Your task to perform on an android device: delete browsing data in the chrome app Image 0: 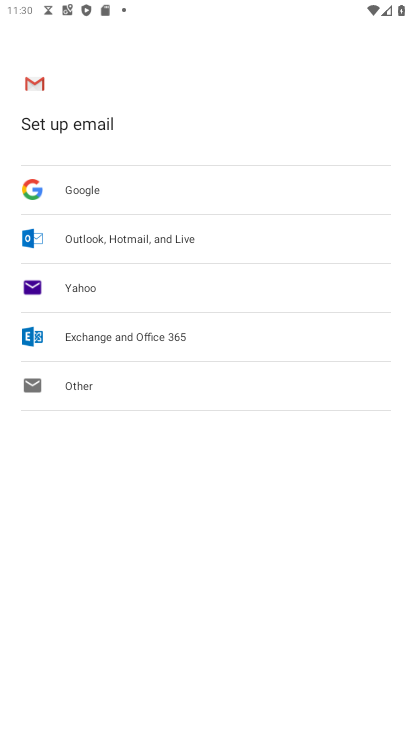
Step 0: press home button
Your task to perform on an android device: delete browsing data in the chrome app Image 1: 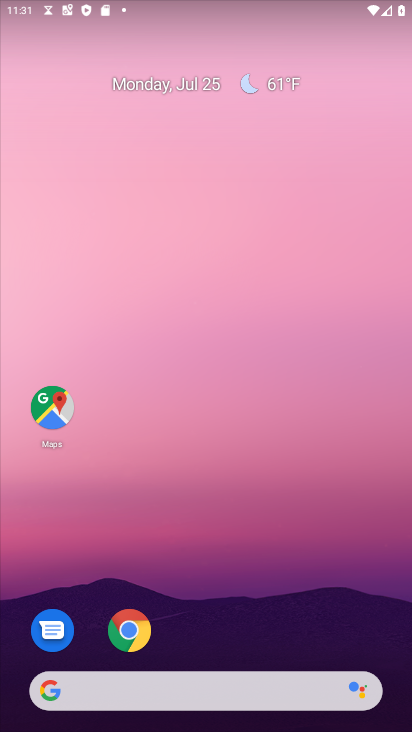
Step 1: click (141, 628)
Your task to perform on an android device: delete browsing data in the chrome app Image 2: 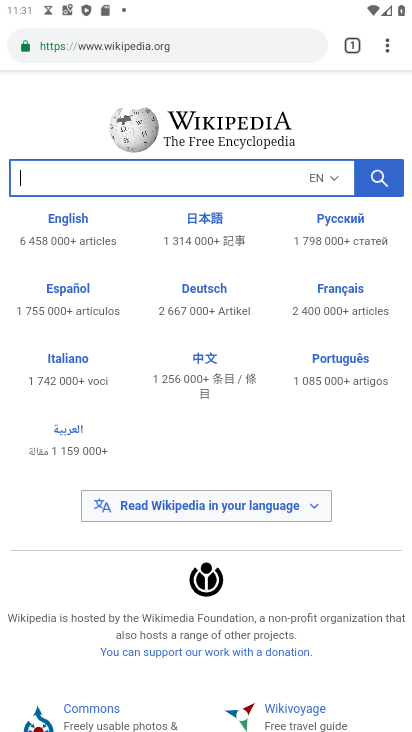
Step 2: click (388, 36)
Your task to perform on an android device: delete browsing data in the chrome app Image 3: 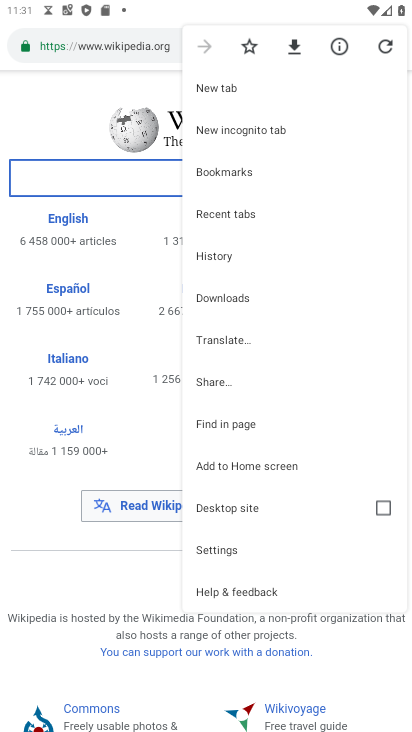
Step 3: click (238, 250)
Your task to perform on an android device: delete browsing data in the chrome app Image 4: 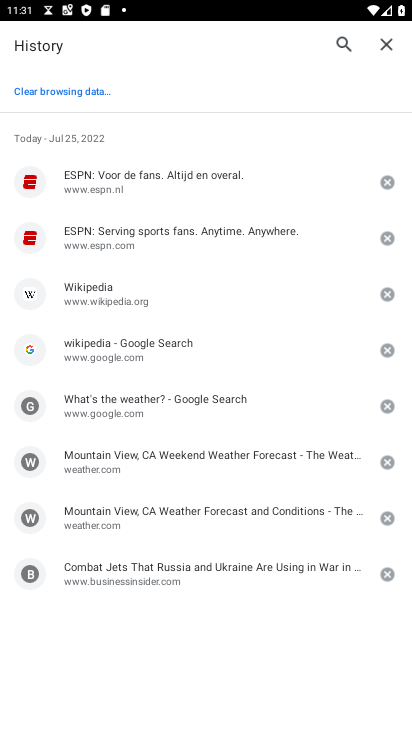
Step 4: click (52, 97)
Your task to perform on an android device: delete browsing data in the chrome app Image 5: 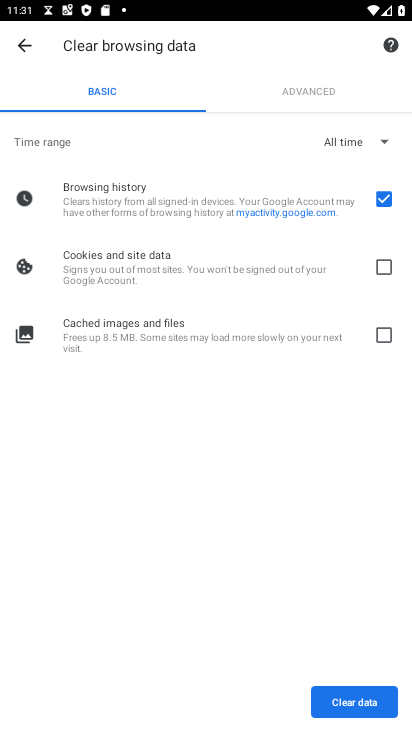
Step 5: click (377, 259)
Your task to perform on an android device: delete browsing data in the chrome app Image 6: 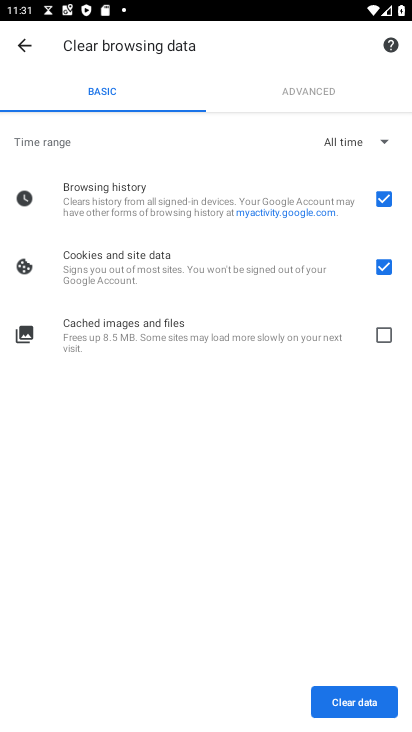
Step 6: click (396, 331)
Your task to perform on an android device: delete browsing data in the chrome app Image 7: 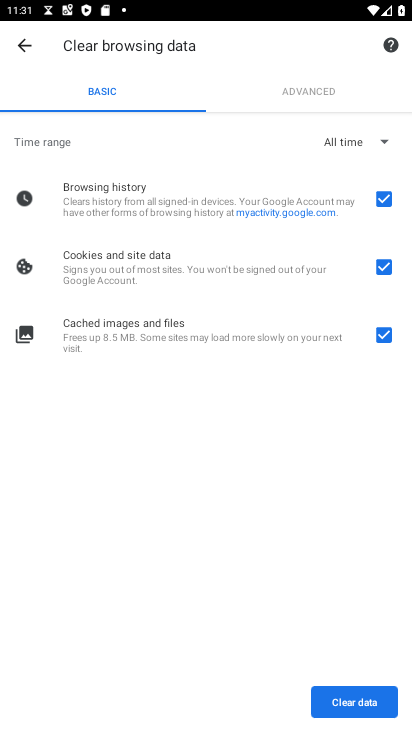
Step 7: click (348, 705)
Your task to perform on an android device: delete browsing data in the chrome app Image 8: 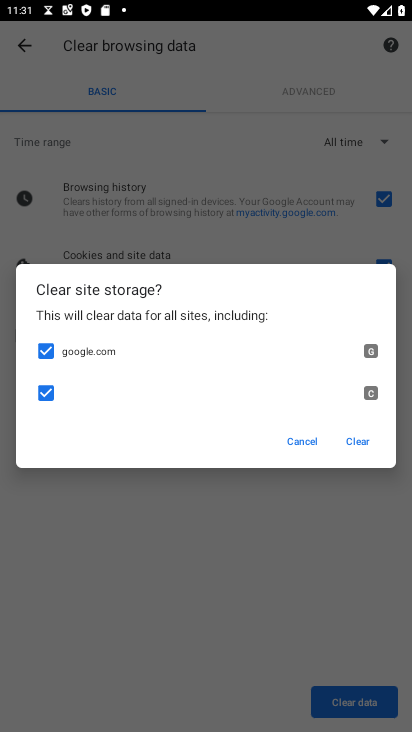
Step 8: click (363, 442)
Your task to perform on an android device: delete browsing data in the chrome app Image 9: 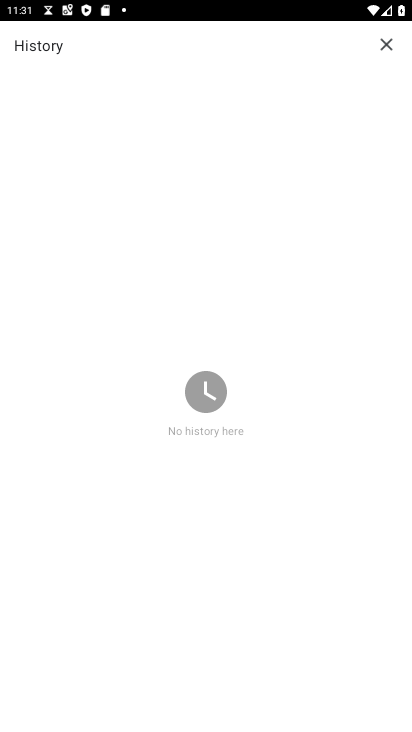
Step 9: task complete